Your task to perform on an android device: turn on wifi Image 0: 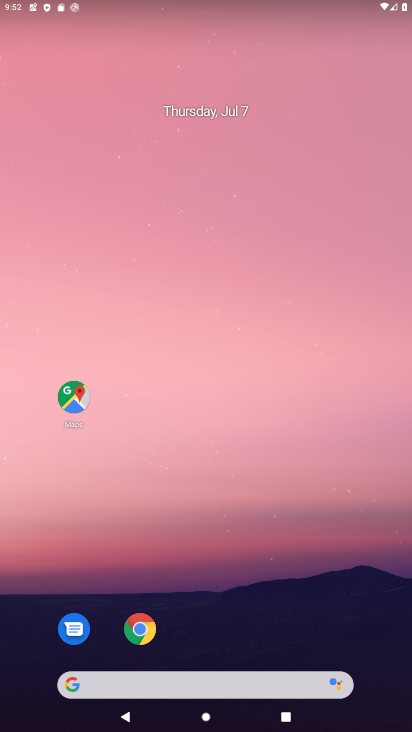
Step 0: drag from (234, 666) to (193, 52)
Your task to perform on an android device: turn on wifi Image 1: 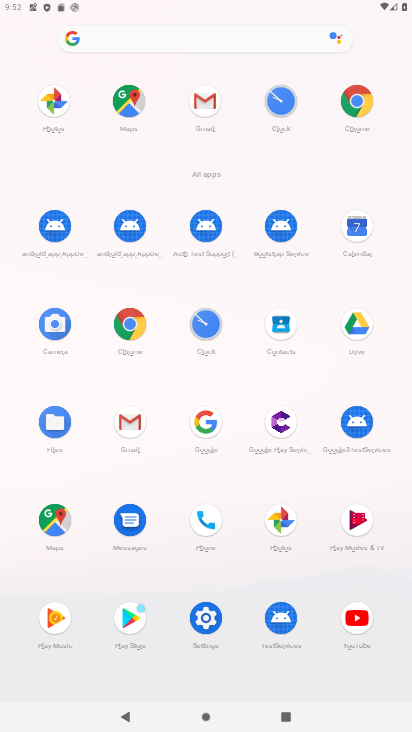
Step 1: click (208, 603)
Your task to perform on an android device: turn on wifi Image 2: 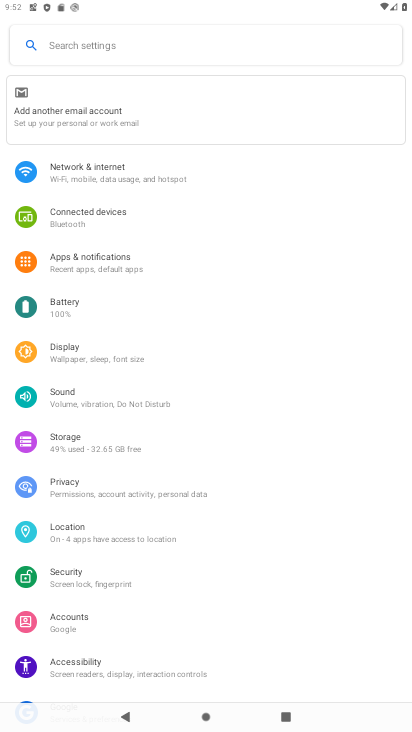
Step 2: click (103, 180)
Your task to perform on an android device: turn on wifi Image 3: 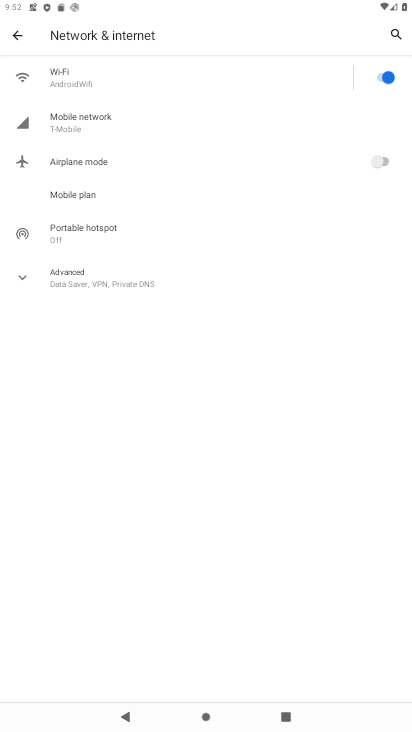
Step 3: task complete